Your task to perform on an android device: What is the recent news? Image 0: 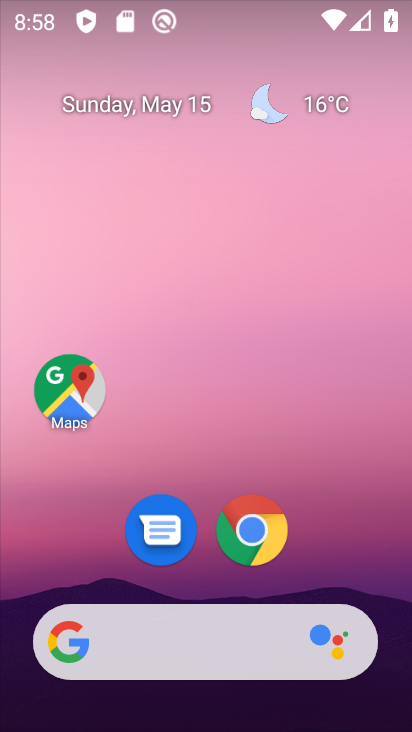
Step 0: drag from (3, 238) to (375, 325)
Your task to perform on an android device: What is the recent news? Image 1: 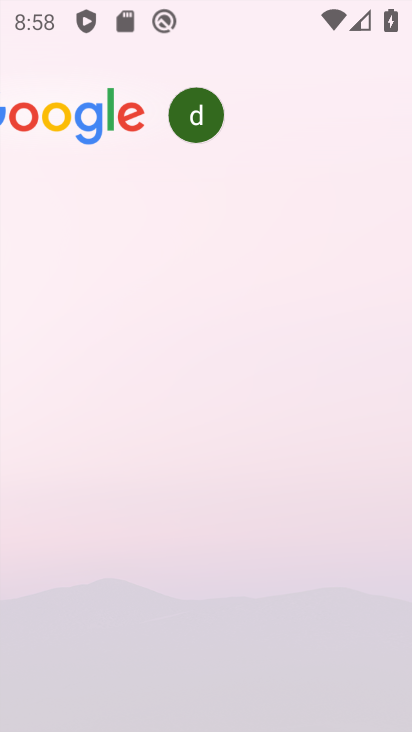
Step 1: task complete